Your task to perform on an android device: Open Chrome and go to the settings page Image 0: 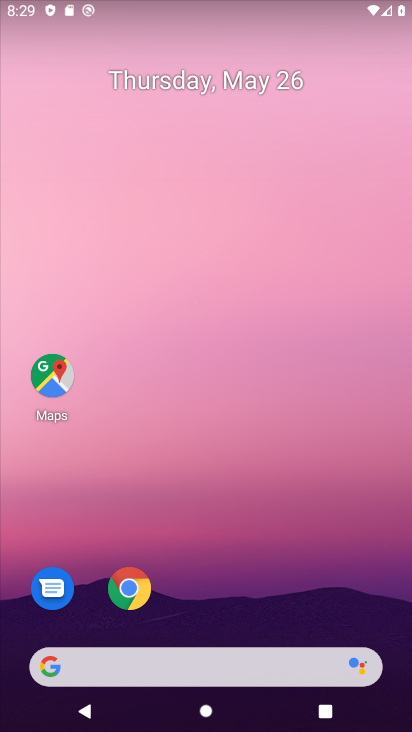
Step 0: click (128, 567)
Your task to perform on an android device: Open Chrome and go to the settings page Image 1: 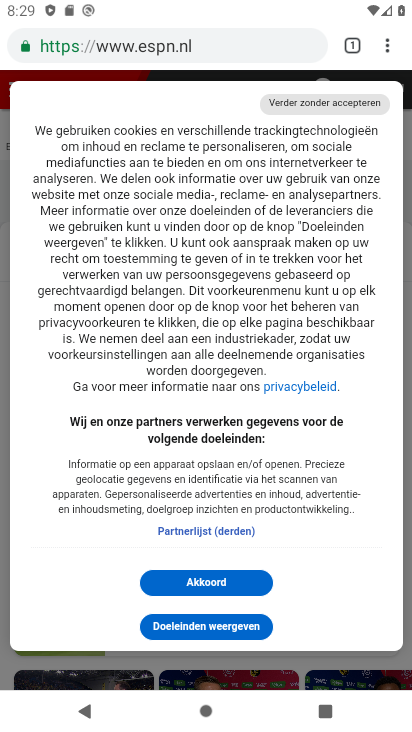
Step 1: click (383, 44)
Your task to perform on an android device: Open Chrome and go to the settings page Image 2: 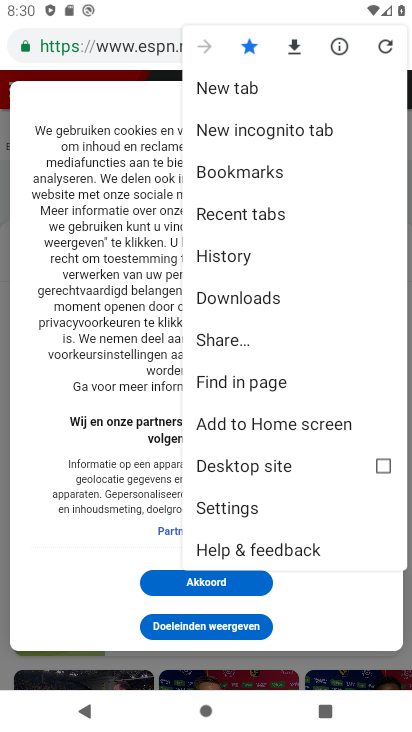
Step 2: click (306, 501)
Your task to perform on an android device: Open Chrome and go to the settings page Image 3: 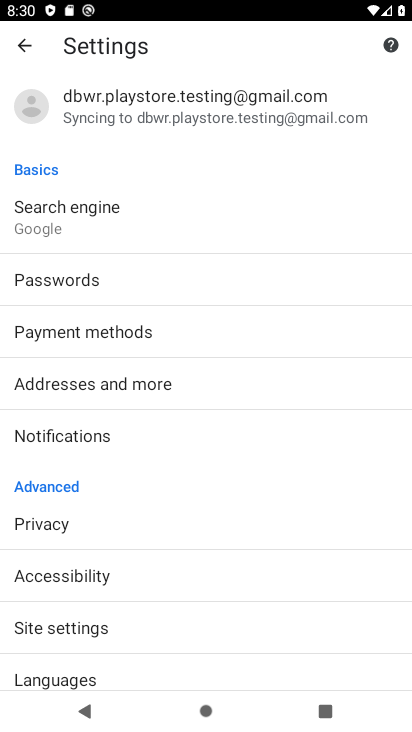
Step 3: task complete